Your task to perform on an android device: Open internet settings Image 0: 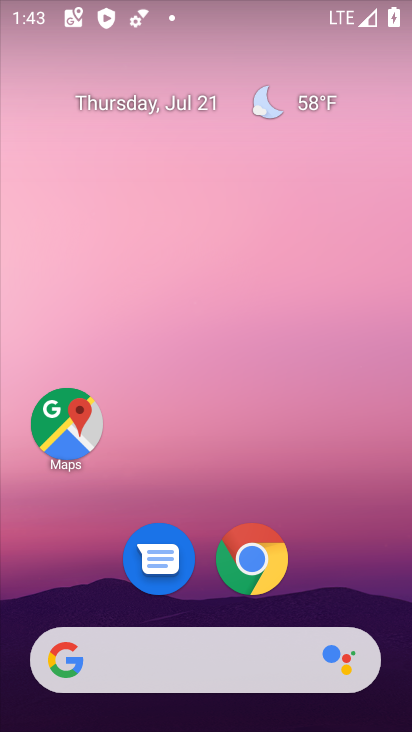
Step 0: drag from (379, 525) to (366, 113)
Your task to perform on an android device: Open internet settings Image 1: 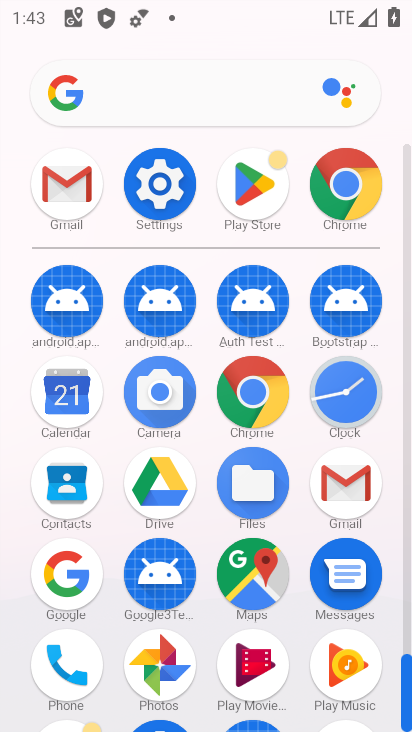
Step 1: click (173, 204)
Your task to perform on an android device: Open internet settings Image 2: 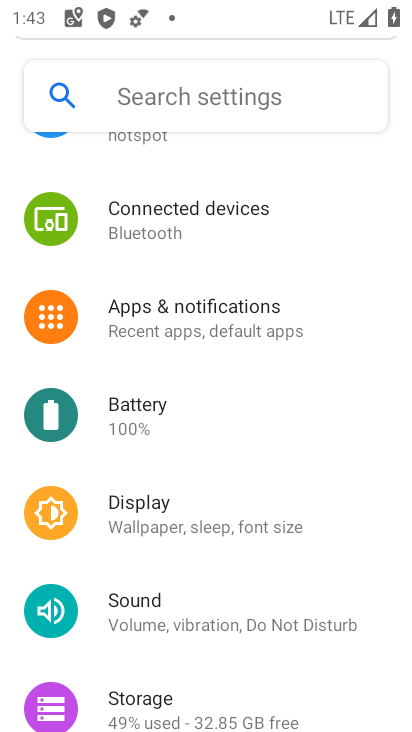
Step 2: drag from (331, 307) to (328, 392)
Your task to perform on an android device: Open internet settings Image 3: 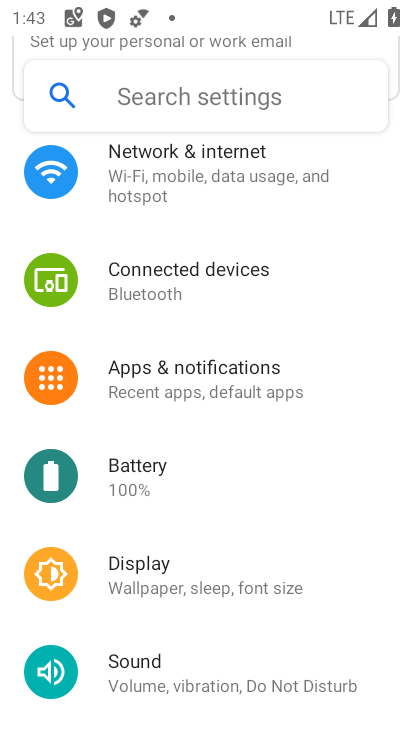
Step 3: drag from (342, 294) to (350, 407)
Your task to perform on an android device: Open internet settings Image 4: 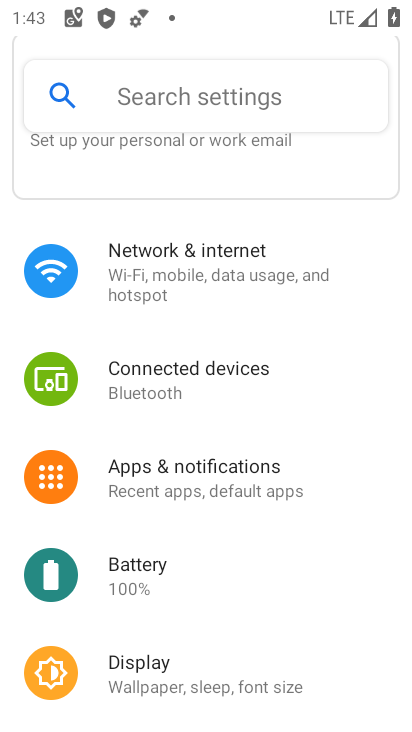
Step 4: drag from (373, 279) to (364, 437)
Your task to perform on an android device: Open internet settings Image 5: 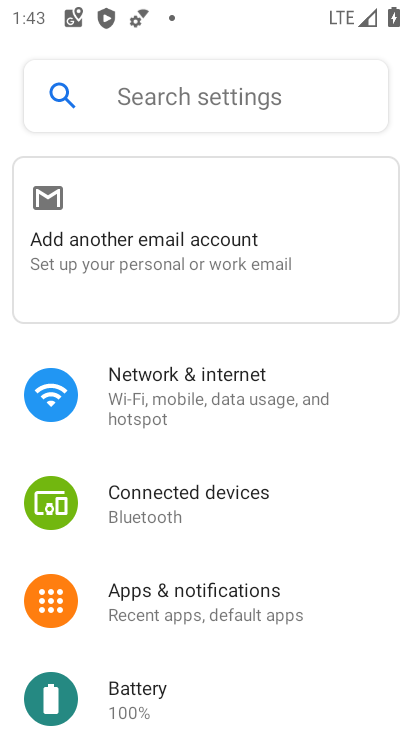
Step 5: drag from (361, 504) to (370, 423)
Your task to perform on an android device: Open internet settings Image 6: 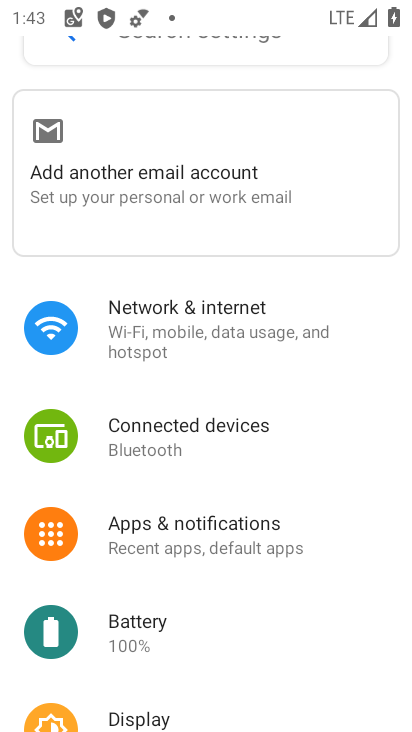
Step 6: click (329, 342)
Your task to perform on an android device: Open internet settings Image 7: 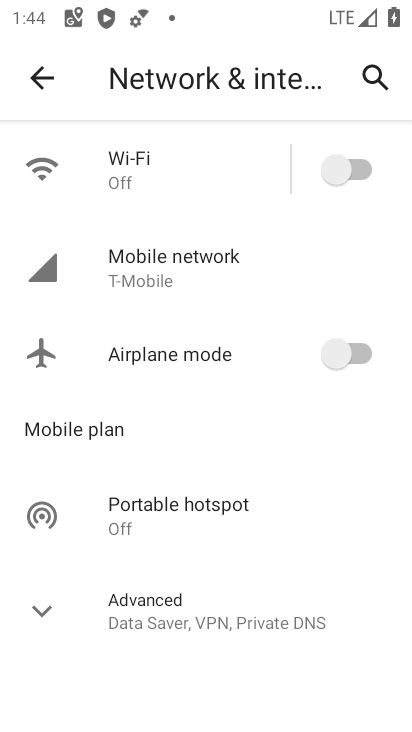
Step 7: task complete